Your task to perform on an android device: Search for macbook on target, select the first entry, and add it to the cart. Image 0: 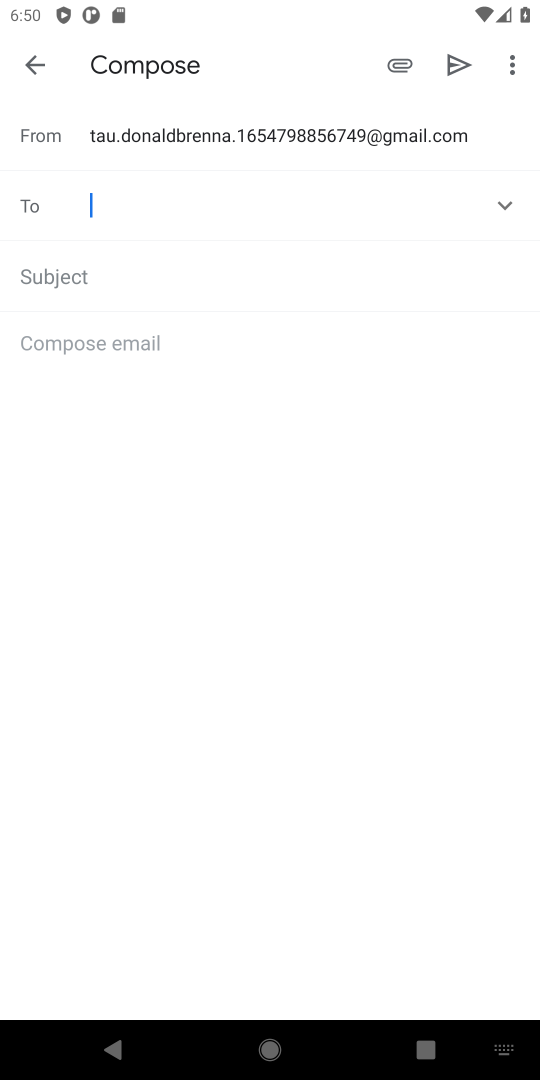
Step 0: press home button
Your task to perform on an android device: Search for macbook on target, select the first entry, and add it to the cart. Image 1: 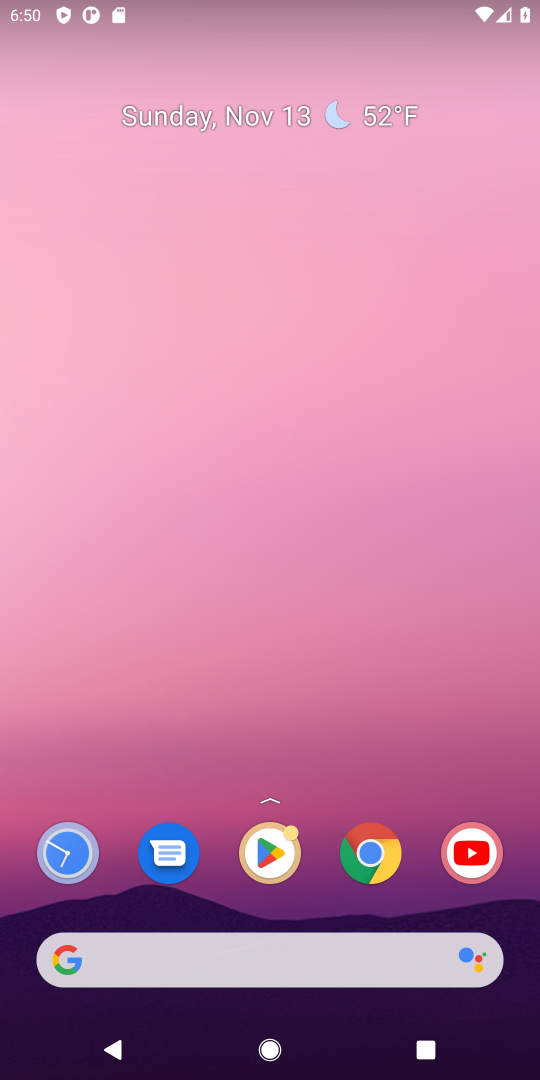
Step 1: click (101, 955)
Your task to perform on an android device: Search for macbook on target, select the first entry, and add it to the cart. Image 2: 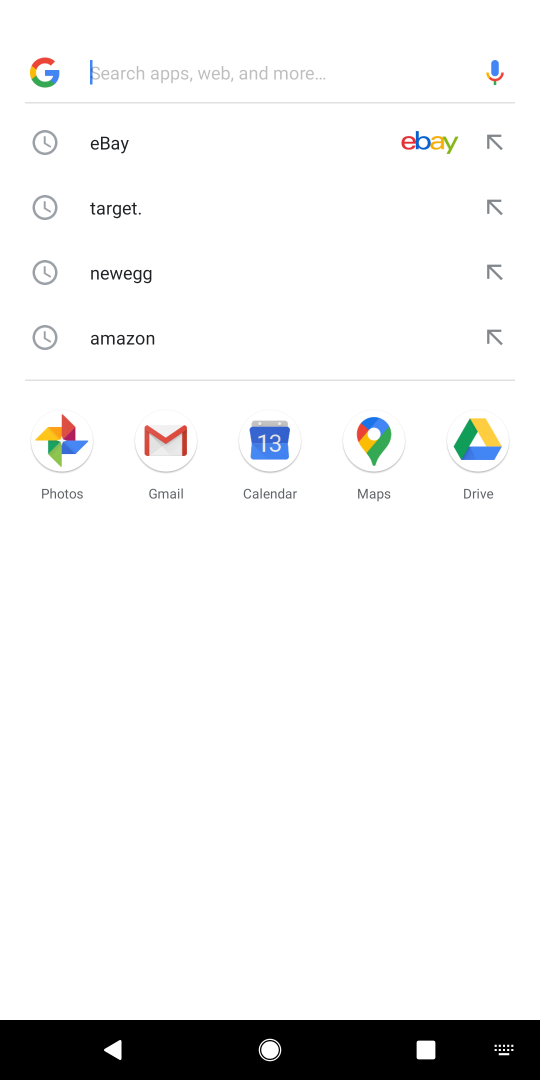
Step 2: type "target"
Your task to perform on an android device: Search for macbook on target, select the first entry, and add it to the cart. Image 3: 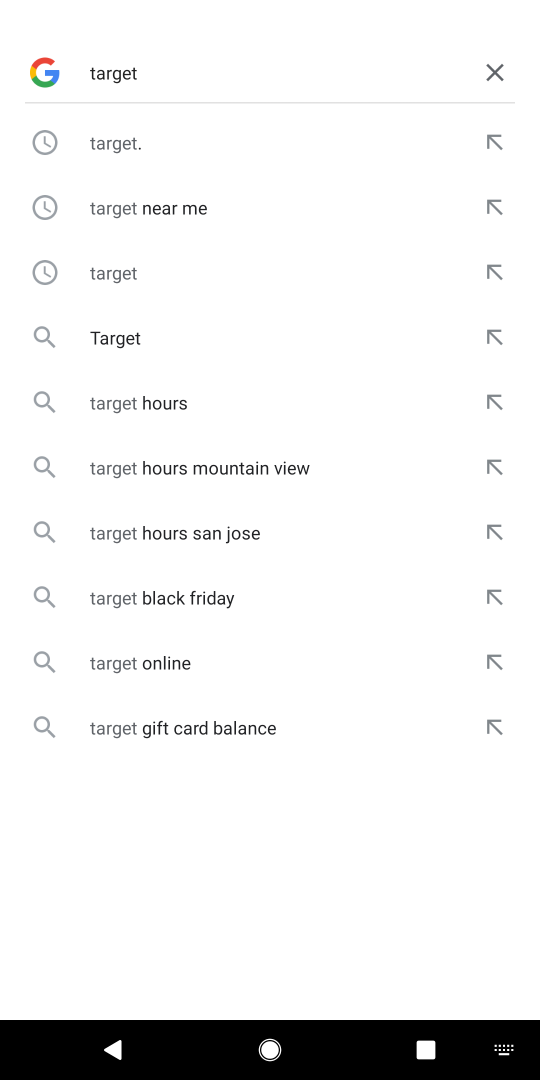
Step 3: press enter
Your task to perform on an android device: Search for macbook on target, select the first entry, and add it to the cart. Image 4: 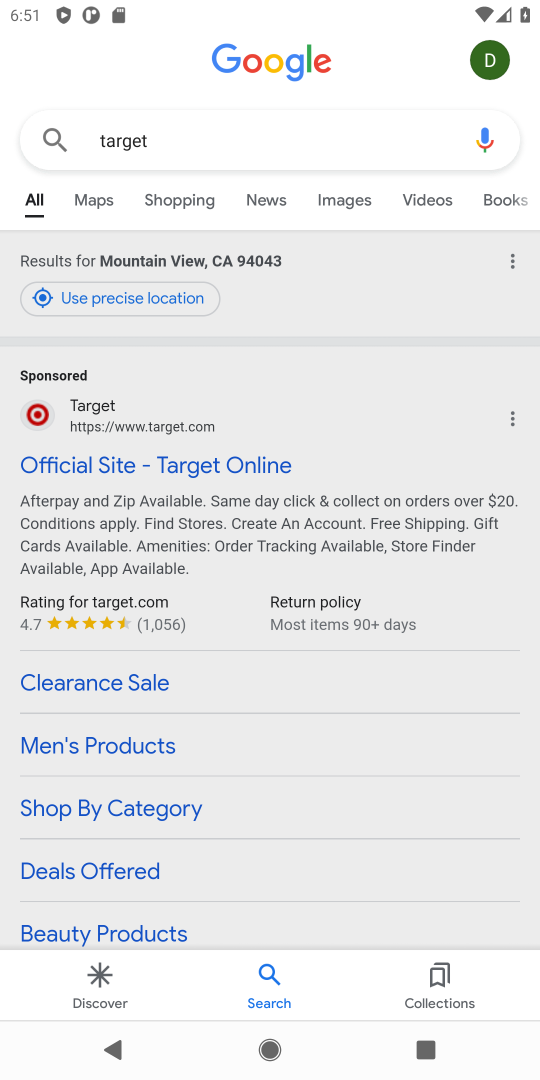
Step 4: click (110, 464)
Your task to perform on an android device: Search for macbook on target, select the first entry, and add it to the cart. Image 5: 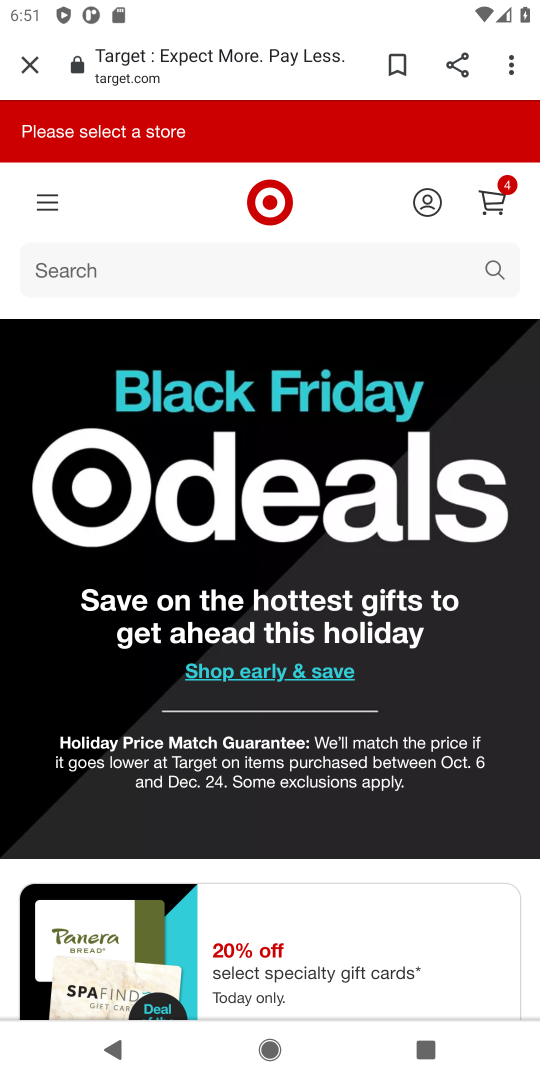
Step 5: click (64, 269)
Your task to perform on an android device: Search for macbook on target, select the first entry, and add it to the cart. Image 6: 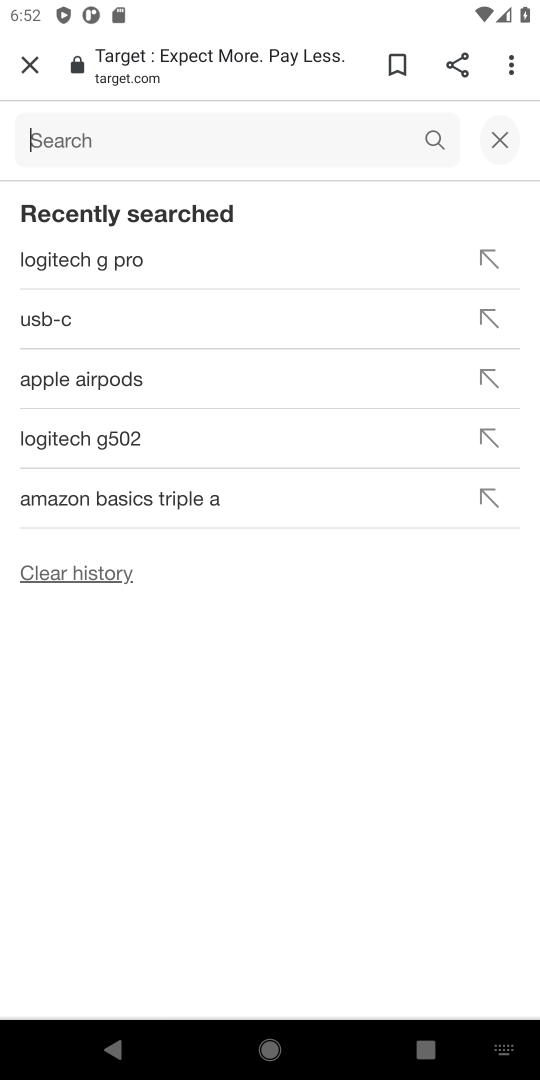
Step 6: type "macbook "
Your task to perform on an android device: Search for macbook on target, select the first entry, and add it to the cart. Image 7: 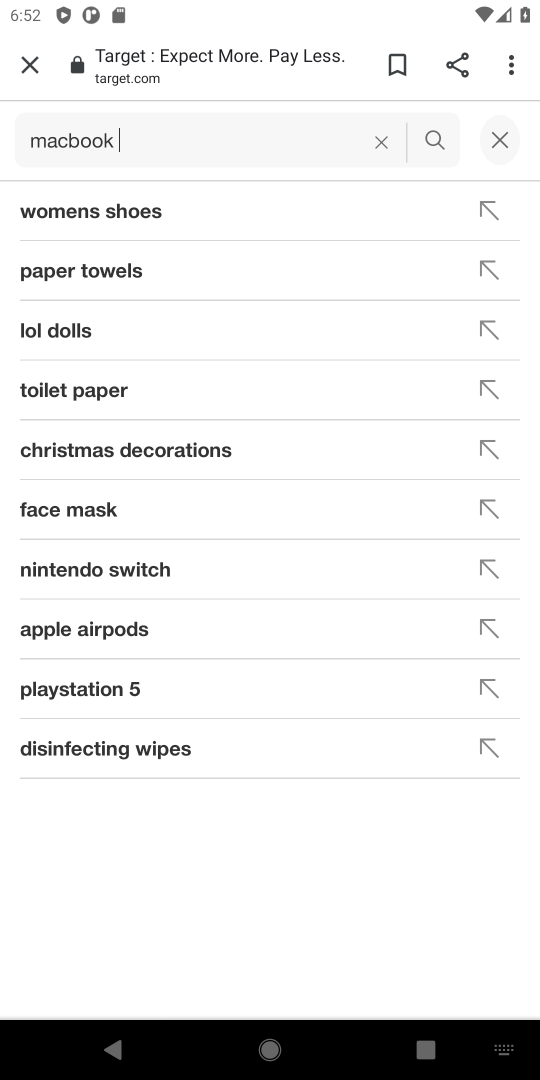
Step 7: press enter
Your task to perform on an android device: Search for macbook on target, select the first entry, and add it to the cart. Image 8: 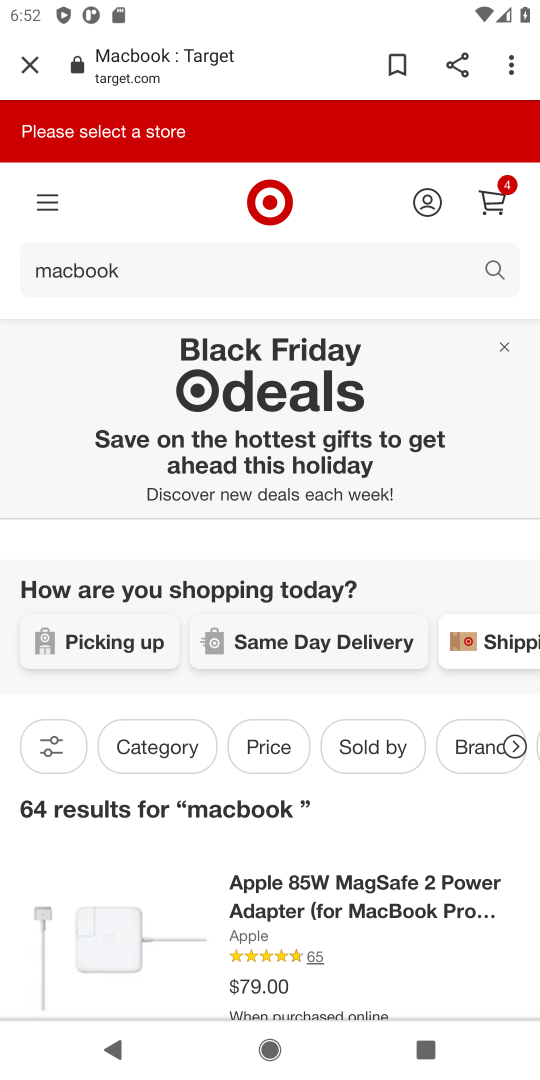
Step 8: drag from (296, 923) to (321, 460)
Your task to perform on an android device: Search for macbook on target, select the first entry, and add it to the cart. Image 9: 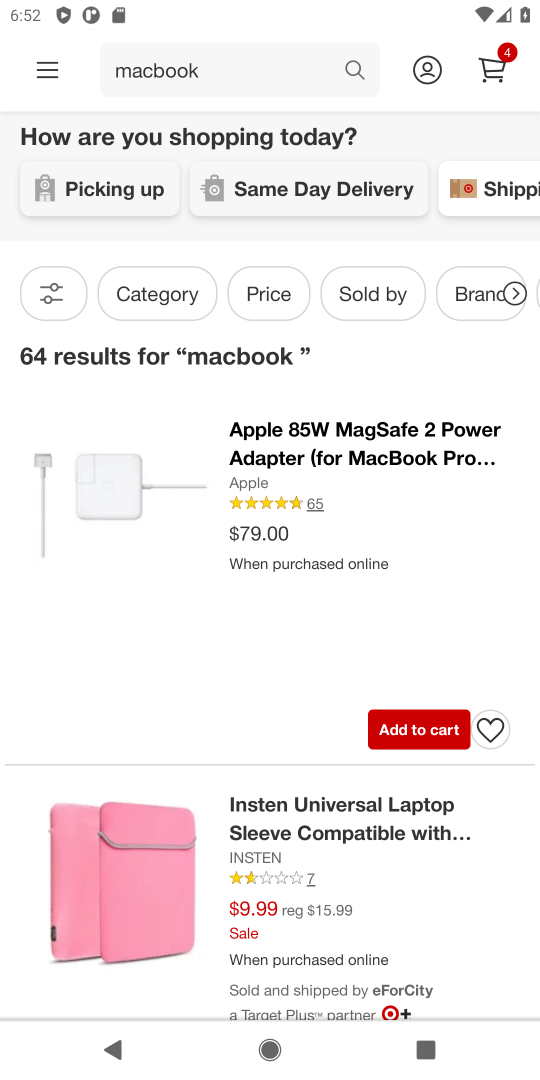
Step 9: click (425, 733)
Your task to perform on an android device: Search for macbook on target, select the first entry, and add it to the cart. Image 10: 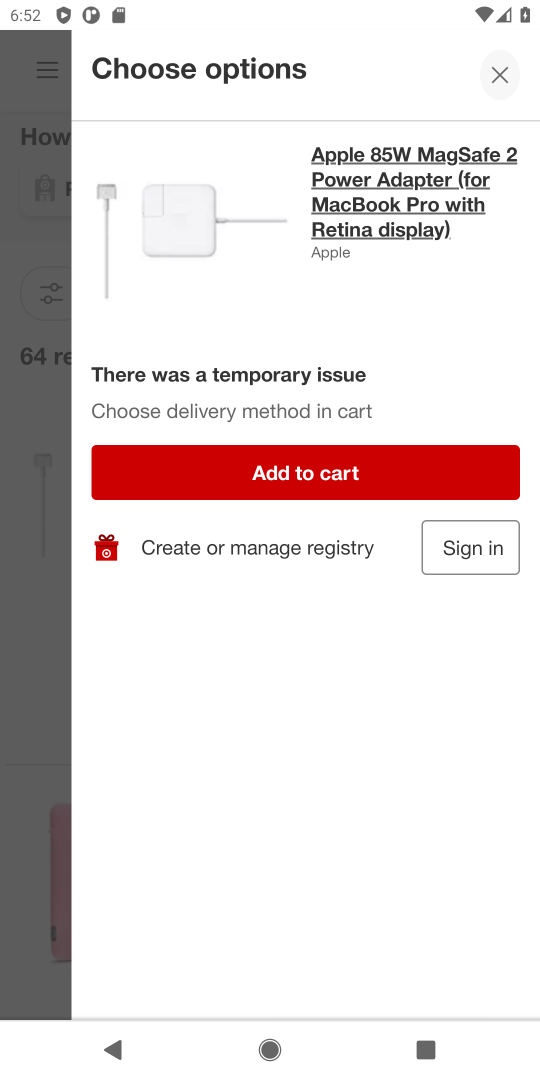
Step 10: click (308, 476)
Your task to perform on an android device: Search for macbook on target, select the first entry, and add it to the cart. Image 11: 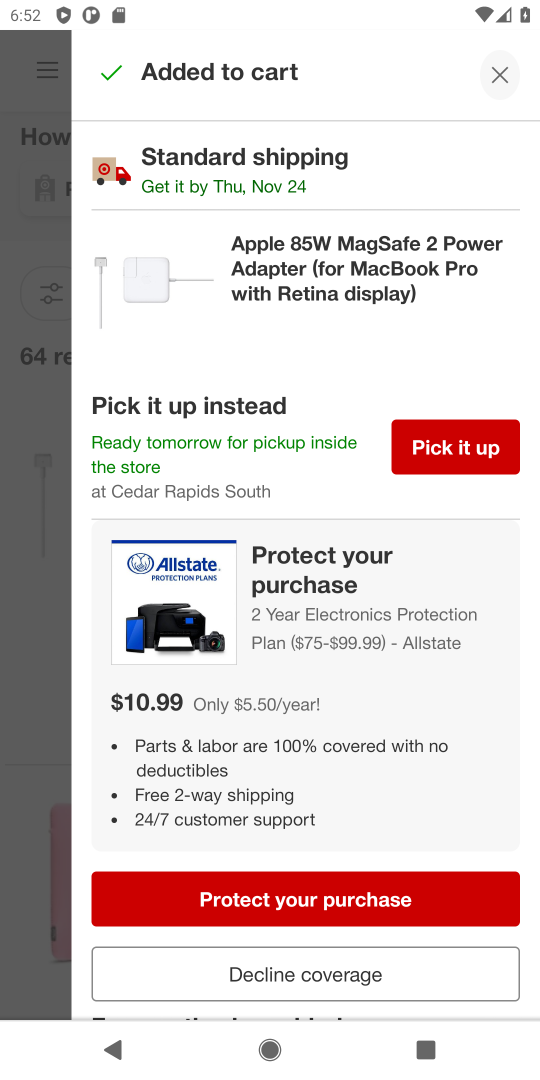
Step 11: click (283, 983)
Your task to perform on an android device: Search for macbook on target, select the first entry, and add it to the cart. Image 12: 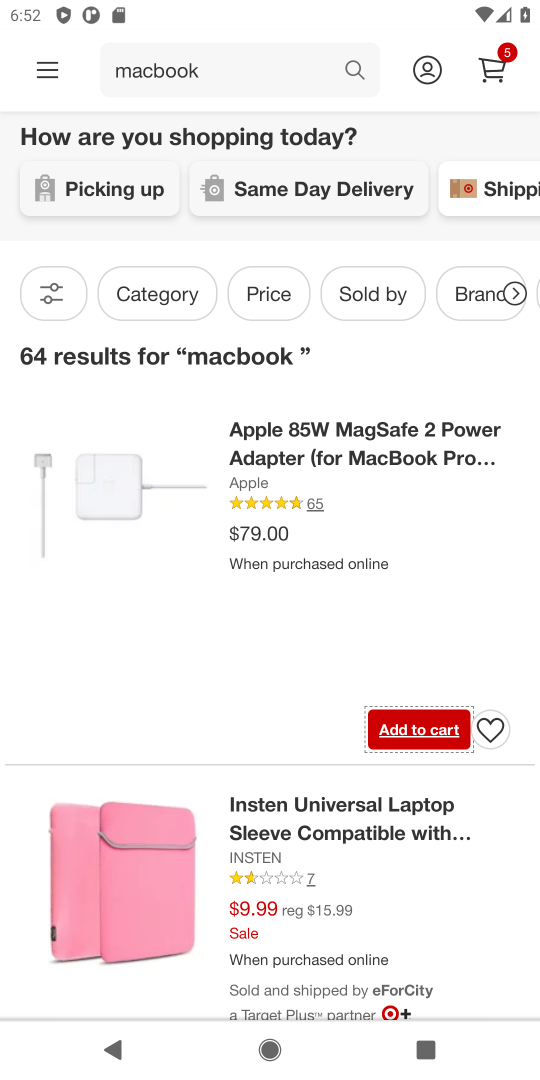
Step 12: task complete